Your task to perform on an android device: change keyboard looks Image 0: 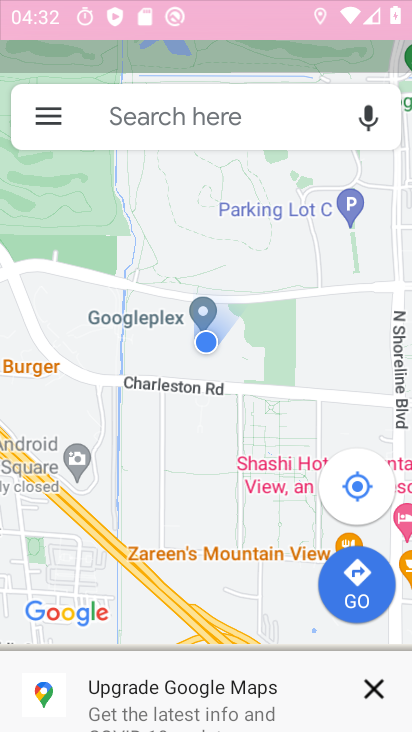
Step 0: click (186, 138)
Your task to perform on an android device: change keyboard looks Image 1: 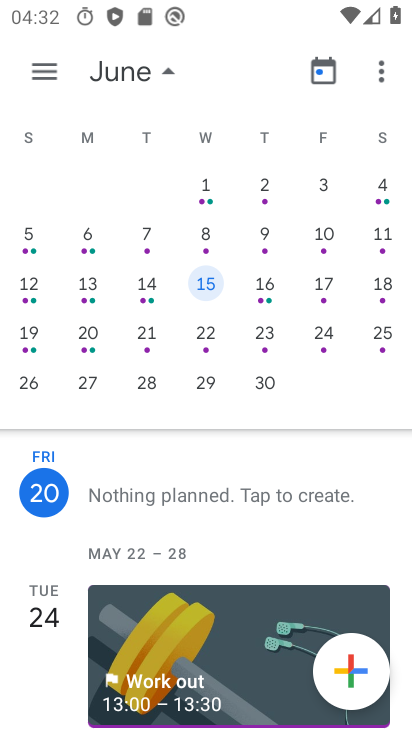
Step 1: press home button
Your task to perform on an android device: change keyboard looks Image 2: 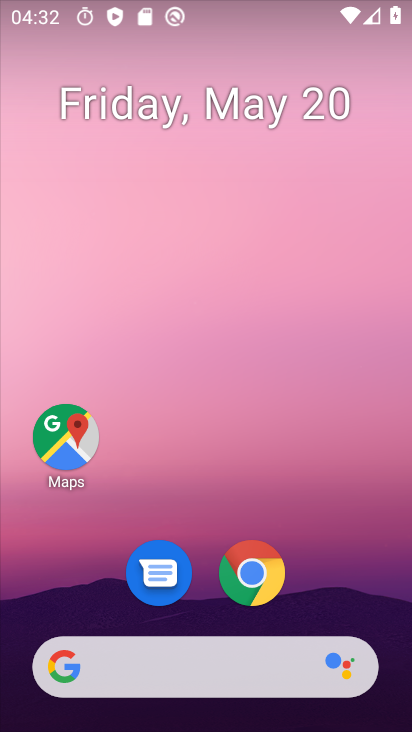
Step 2: drag from (273, 676) to (170, 83)
Your task to perform on an android device: change keyboard looks Image 3: 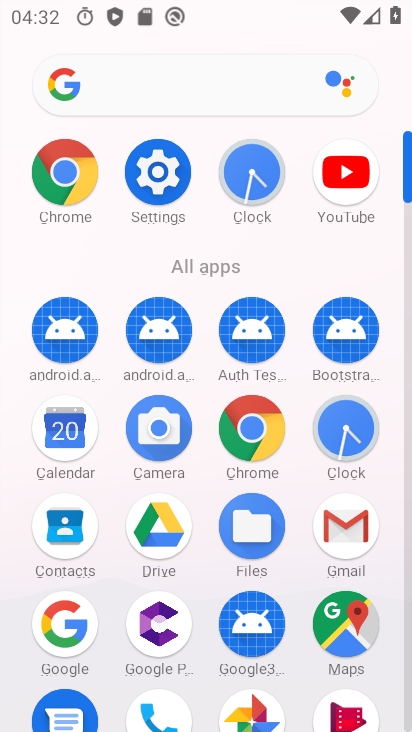
Step 3: drag from (193, 495) to (156, 138)
Your task to perform on an android device: change keyboard looks Image 4: 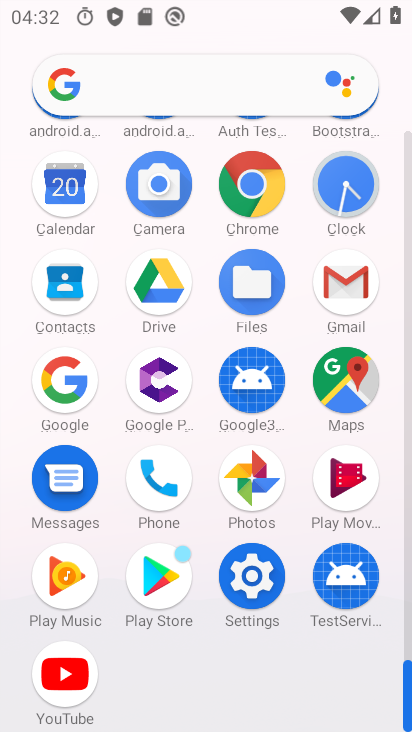
Step 4: drag from (175, 445) to (178, 69)
Your task to perform on an android device: change keyboard looks Image 5: 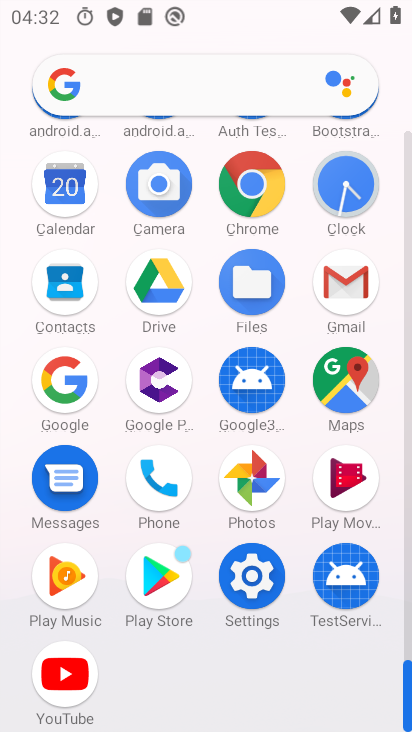
Step 5: click (249, 574)
Your task to perform on an android device: change keyboard looks Image 6: 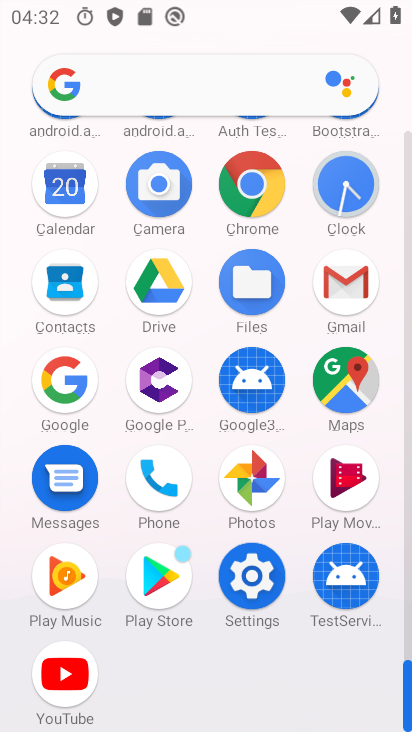
Step 6: click (249, 574)
Your task to perform on an android device: change keyboard looks Image 7: 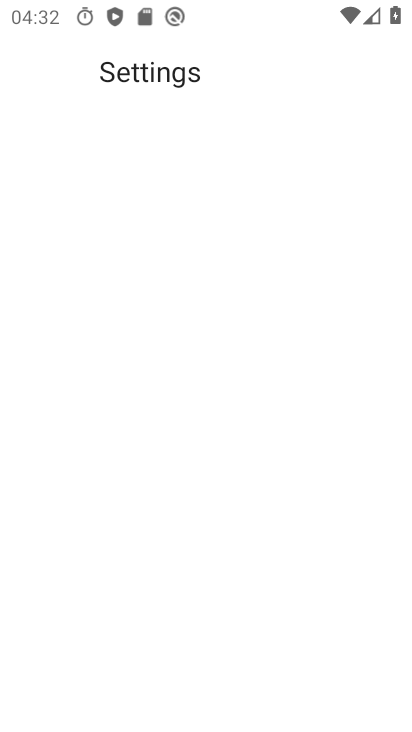
Step 7: click (249, 574)
Your task to perform on an android device: change keyboard looks Image 8: 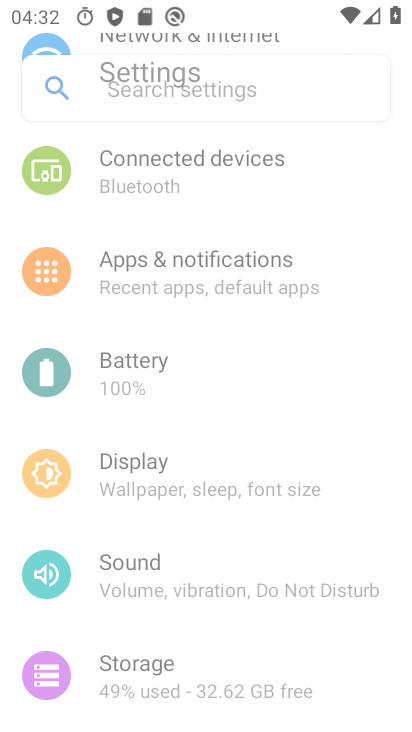
Step 8: click (250, 576)
Your task to perform on an android device: change keyboard looks Image 9: 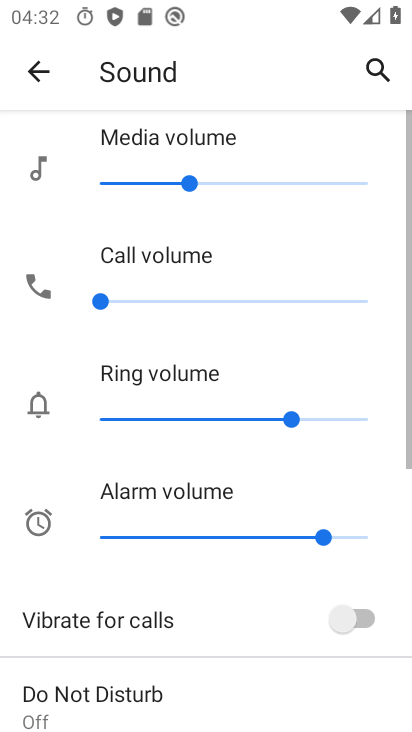
Step 9: click (33, 72)
Your task to perform on an android device: change keyboard looks Image 10: 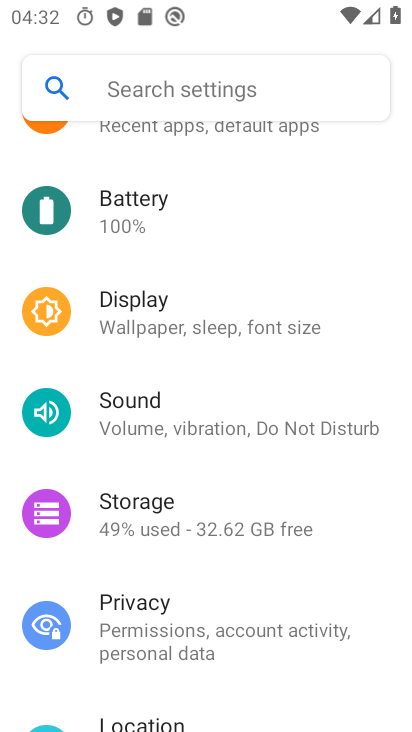
Step 10: drag from (173, 493) to (167, 32)
Your task to perform on an android device: change keyboard looks Image 11: 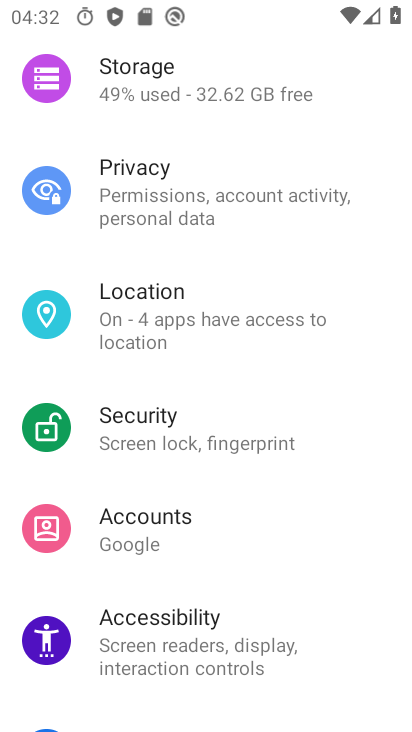
Step 11: drag from (127, 379) to (120, 87)
Your task to perform on an android device: change keyboard looks Image 12: 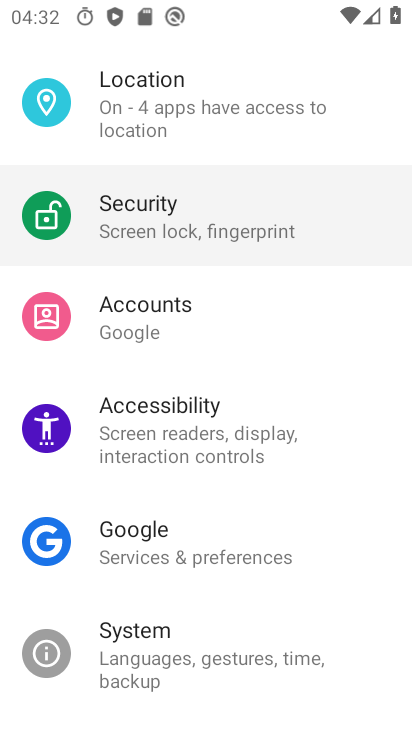
Step 12: drag from (115, 460) to (96, 161)
Your task to perform on an android device: change keyboard looks Image 13: 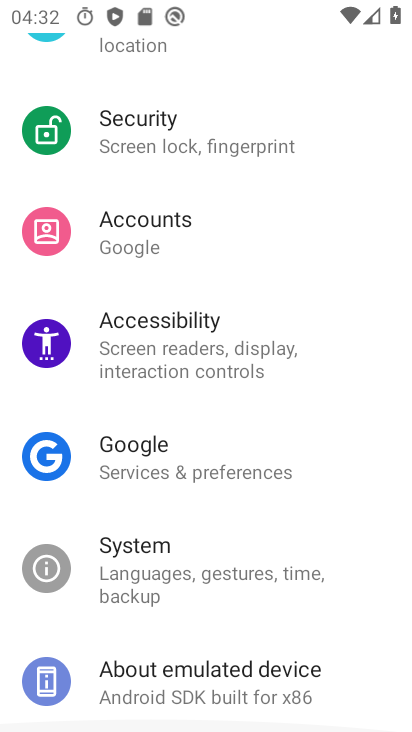
Step 13: drag from (175, 372) to (130, 64)
Your task to perform on an android device: change keyboard looks Image 14: 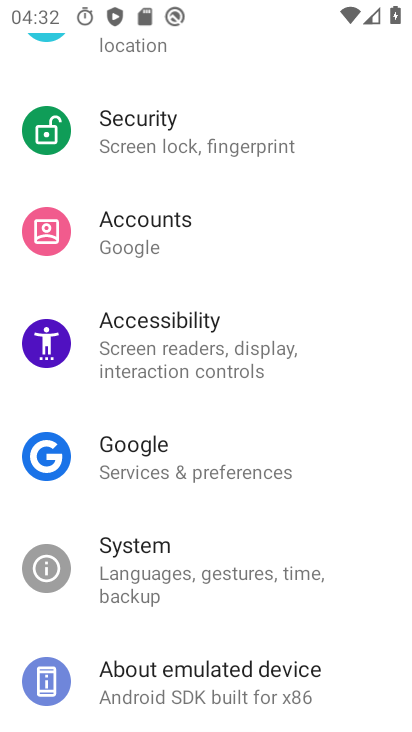
Step 14: drag from (161, 416) to (153, 84)
Your task to perform on an android device: change keyboard looks Image 15: 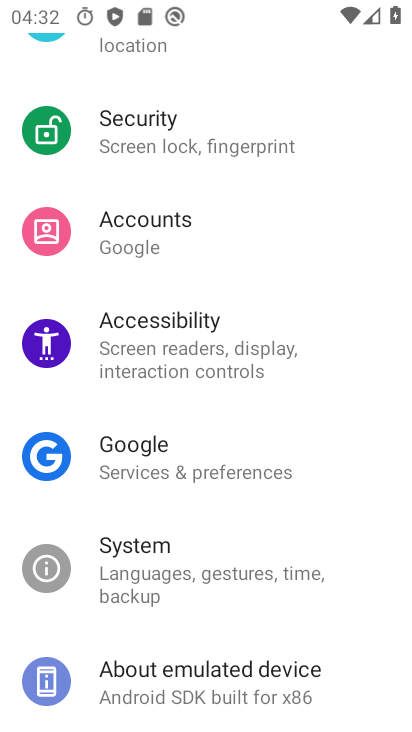
Step 15: drag from (172, 462) to (176, 116)
Your task to perform on an android device: change keyboard looks Image 16: 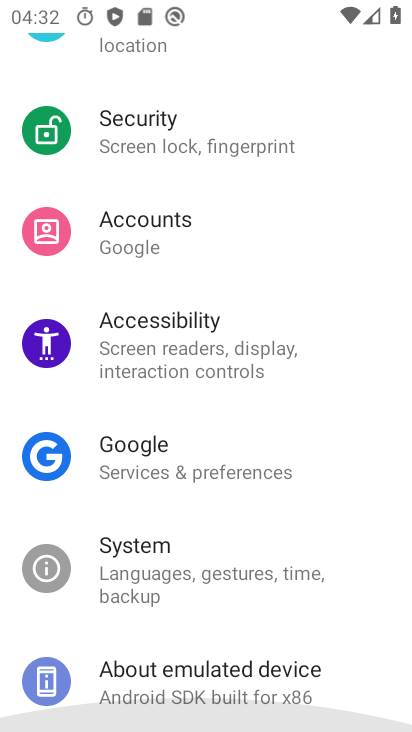
Step 16: drag from (141, 489) to (124, 52)
Your task to perform on an android device: change keyboard looks Image 17: 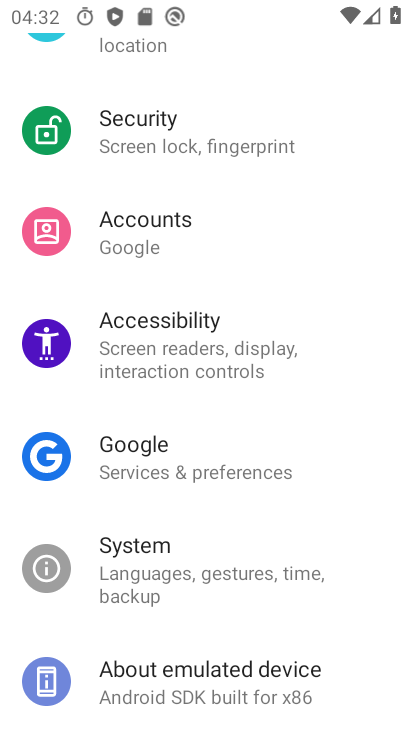
Step 17: click (137, 573)
Your task to perform on an android device: change keyboard looks Image 18: 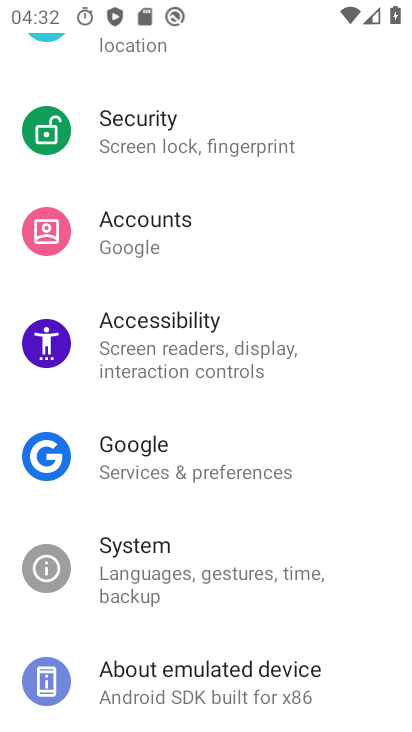
Step 18: click (137, 579)
Your task to perform on an android device: change keyboard looks Image 19: 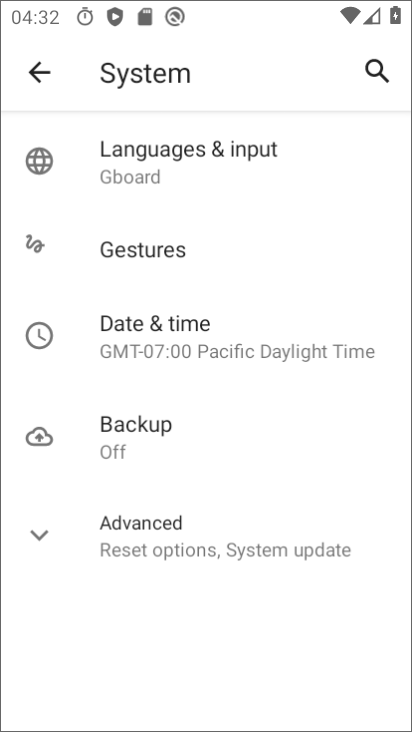
Step 19: click (136, 579)
Your task to perform on an android device: change keyboard looks Image 20: 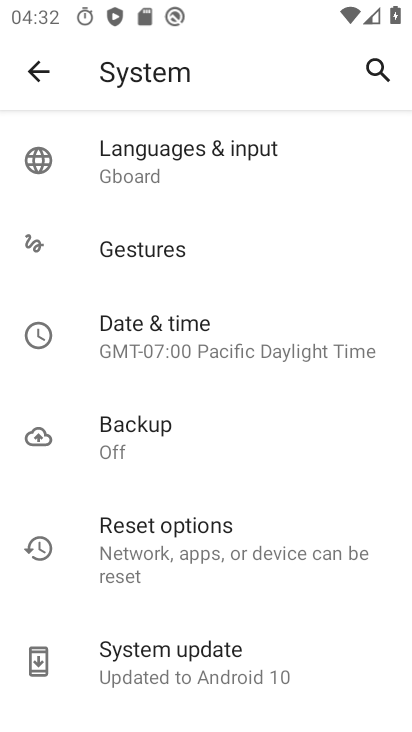
Step 20: click (142, 168)
Your task to perform on an android device: change keyboard looks Image 21: 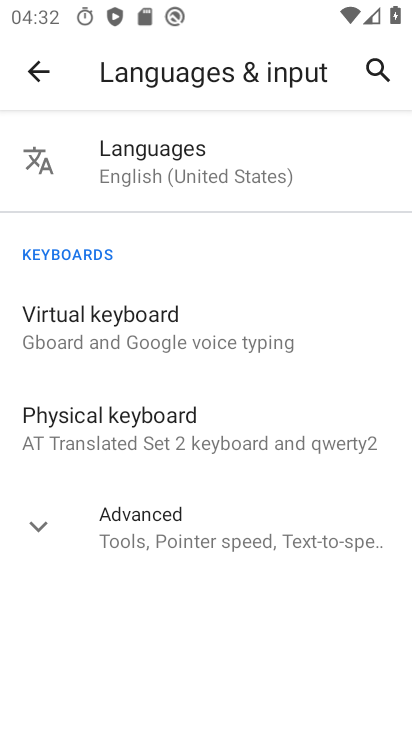
Step 21: click (131, 334)
Your task to perform on an android device: change keyboard looks Image 22: 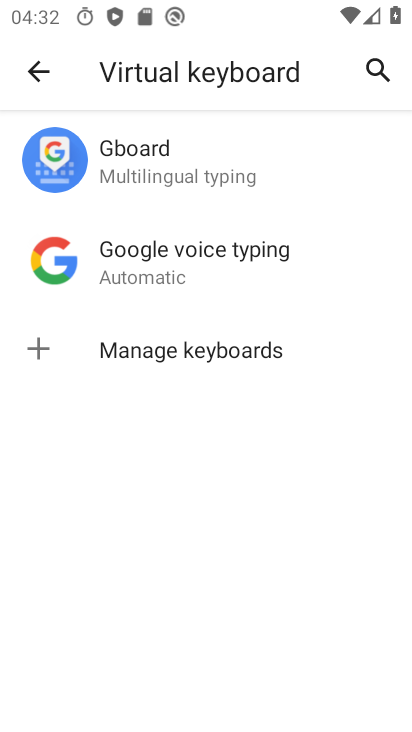
Step 22: click (127, 139)
Your task to perform on an android device: change keyboard looks Image 23: 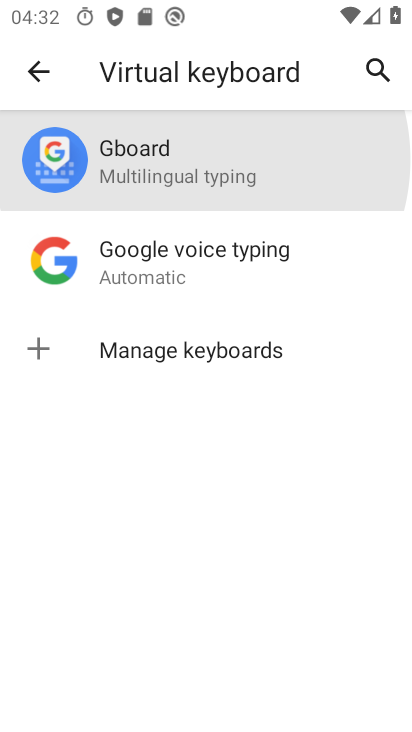
Step 23: click (137, 160)
Your task to perform on an android device: change keyboard looks Image 24: 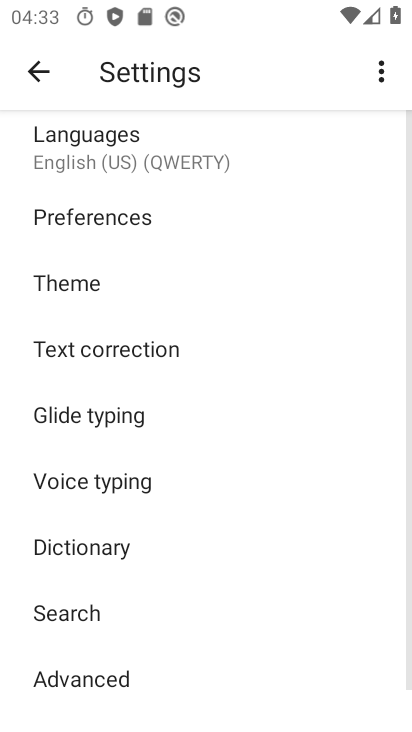
Step 24: click (75, 293)
Your task to perform on an android device: change keyboard looks Image 25: 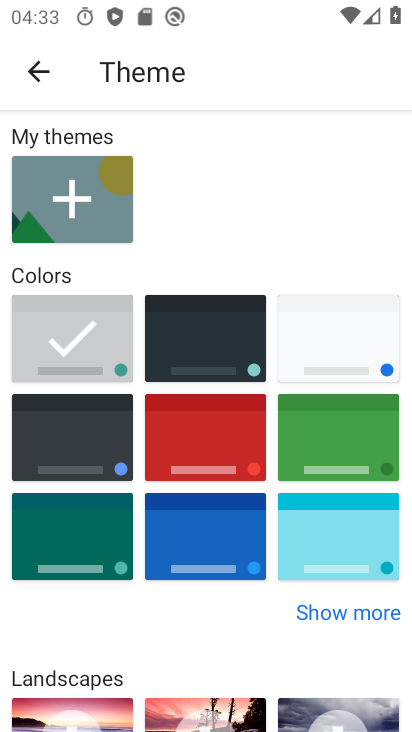
Step 25: click (184, 458)
Your task to perform on an android device: change keyboard looks Image 26: 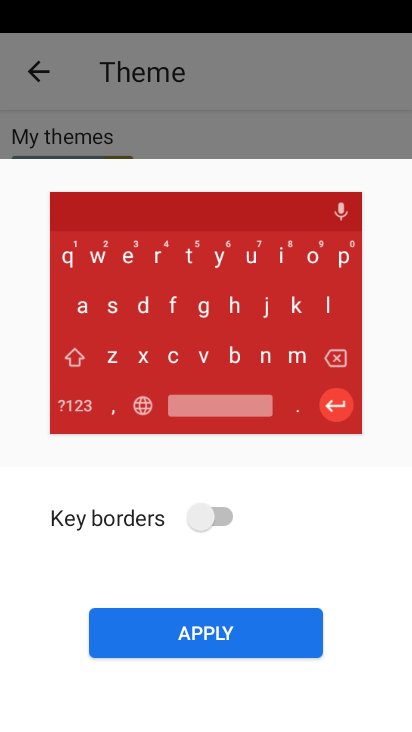
Step 26: click (223, 637)
Your task to perform on an android device: change keyboard looks Image 27: 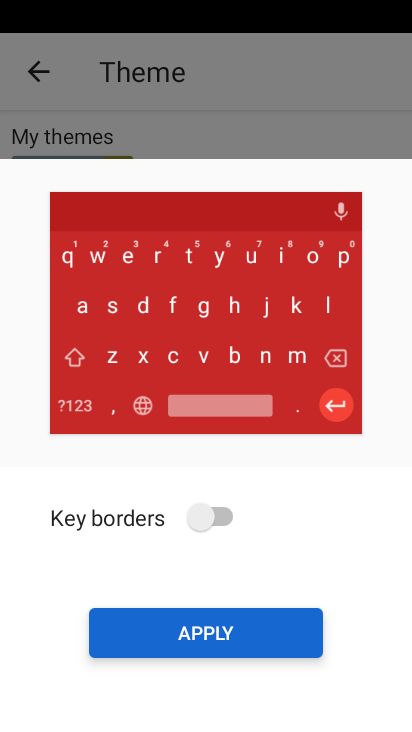
Step 27: click (223, 637)
Your task to perform on an android device: change keyboard looks Image 28: 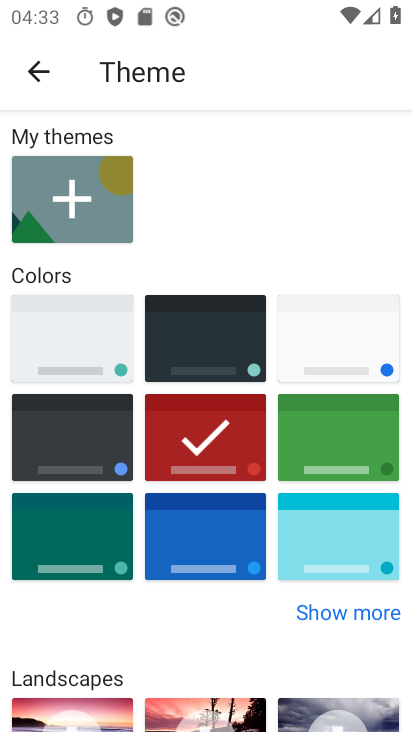
Step 28: click (223, 636)
Your task to perform on an android device: change keyboard looks Image 29: 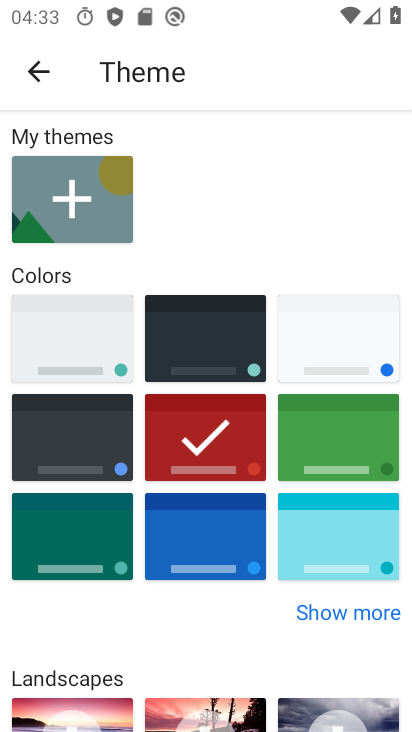
Step 29: task complete